Your task to perform on an android device: Check the weather Image 0: 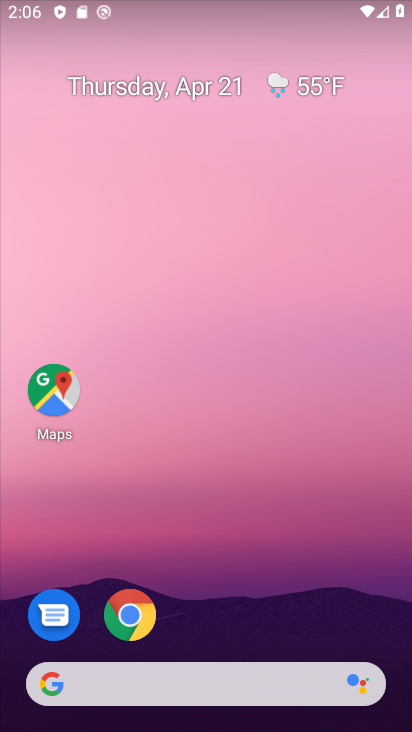
Step 0: click (308, 79)
Your task to perform on an android device: Check the weather Image 1: 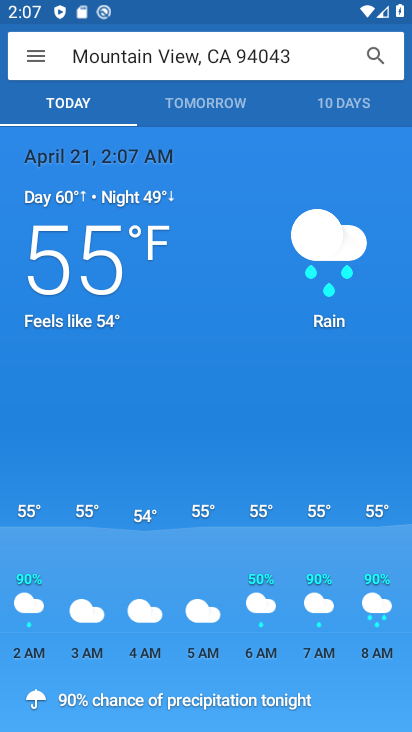
Step 1: task complete